Your task to perform on an android device: install app "Microsoft Outlook" Image 0: 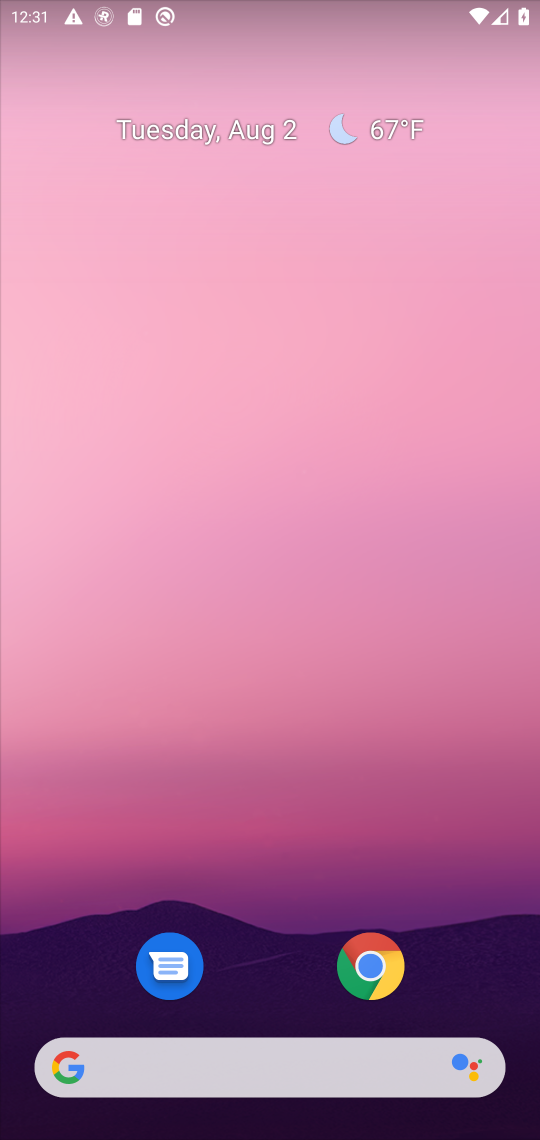
Step 0: drag from (283, 880) to (321, 103)
Your task to perform on an android device: install app "Microsoft Outlook" Image 1: 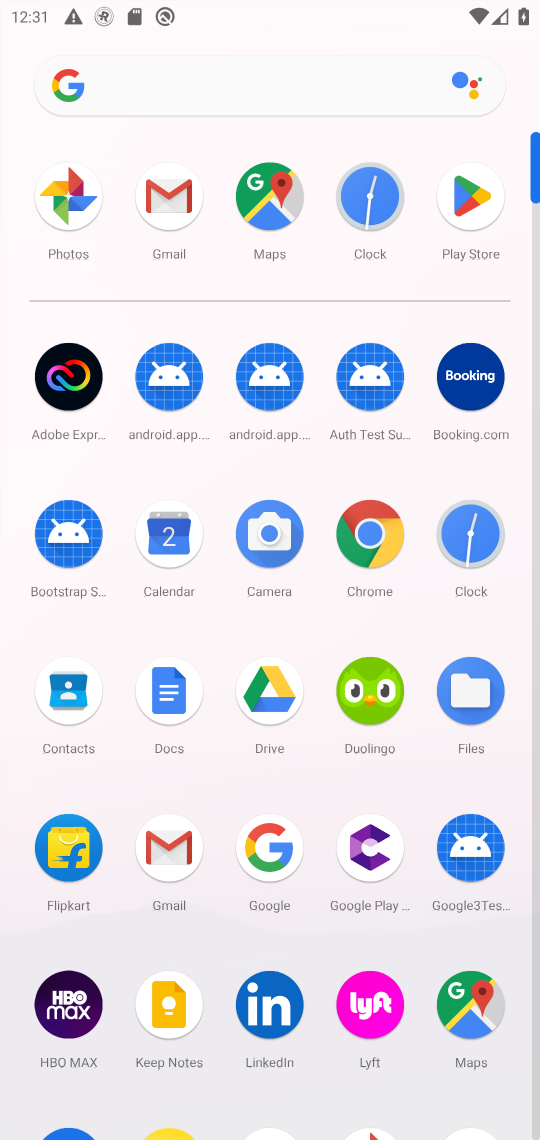
Step 1: click (481, 192)
Your task to perform on an android device: install app "Microsoft Outlook" Image 2: 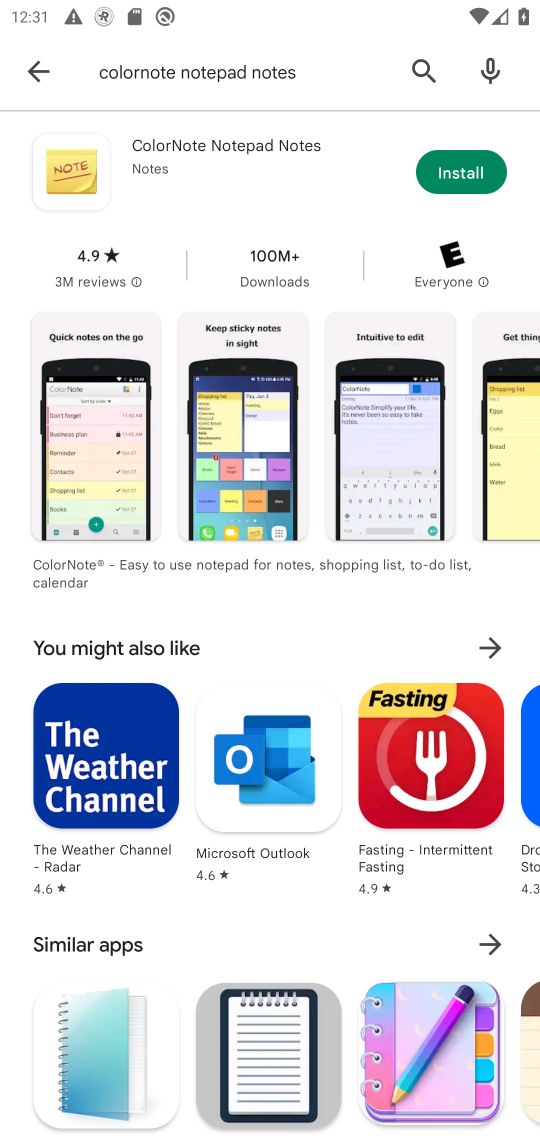
Step 2: click (422, 64)
Your task to perform on an android device: install app "Microsoft Outlook" Image 3: 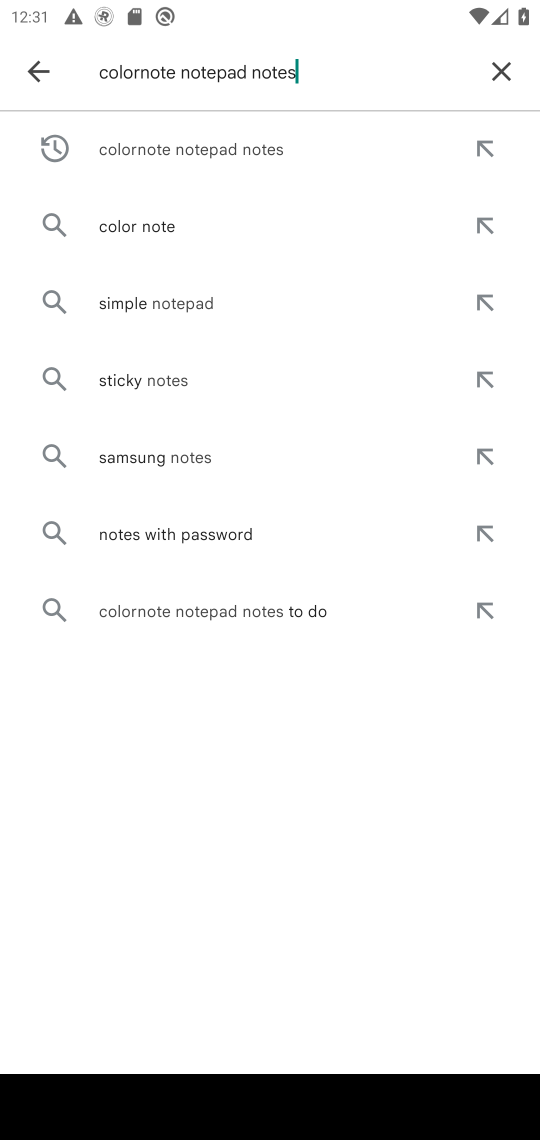
Step 3: click (491, 70)
Your task to perform on an android device: install app "Microsoft Outlook" Image 4: 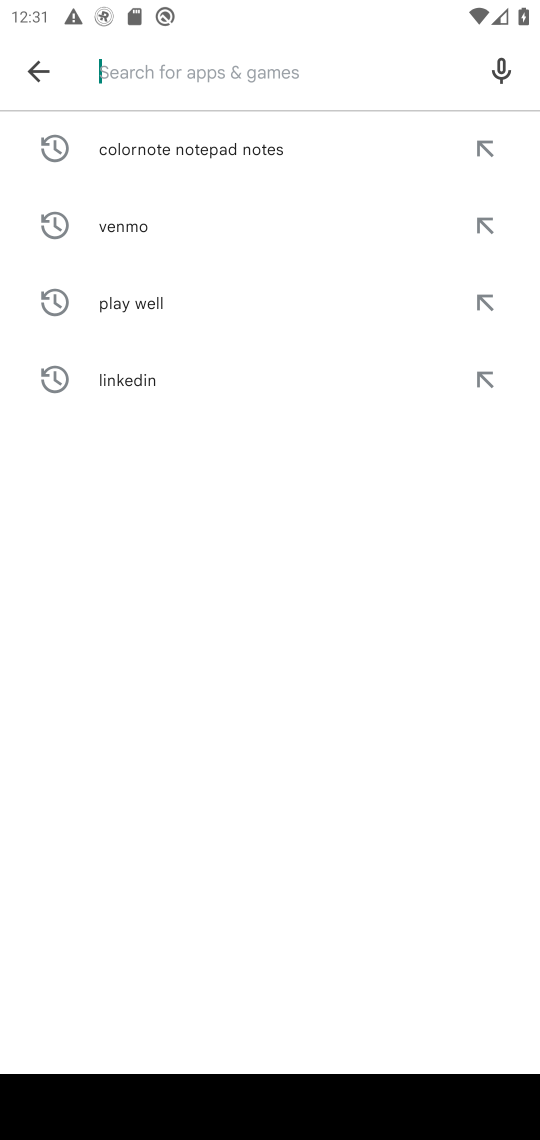
Step 4: click (361, 85)
Your task to perform on an android device: install app "Microsoft Outlook" Image 5: 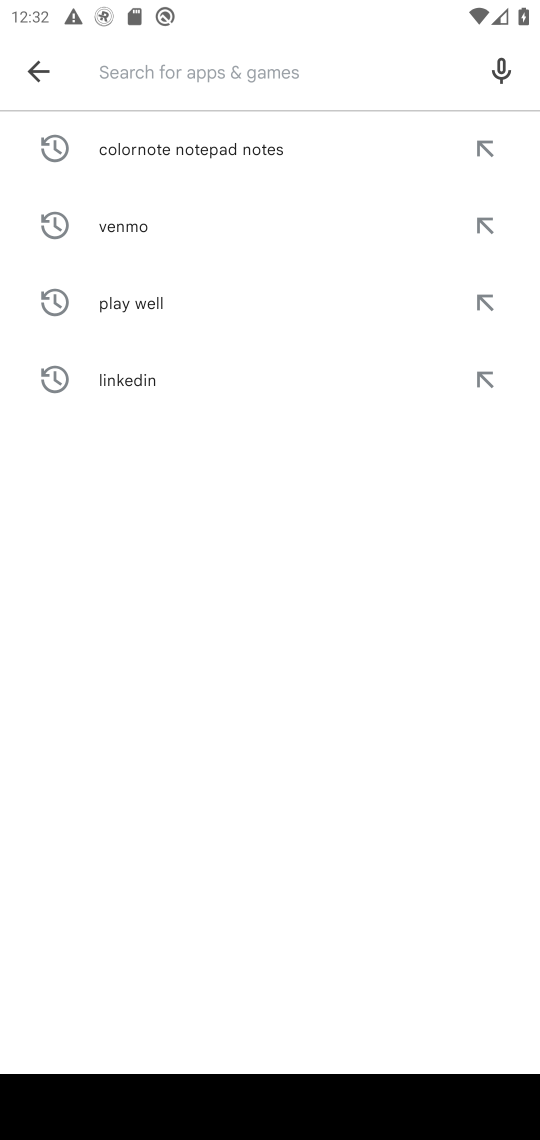
Step 5: type "microsoft outlook"
Your task to perform on an android device: install app "Microsoft Outlook" Image 6: 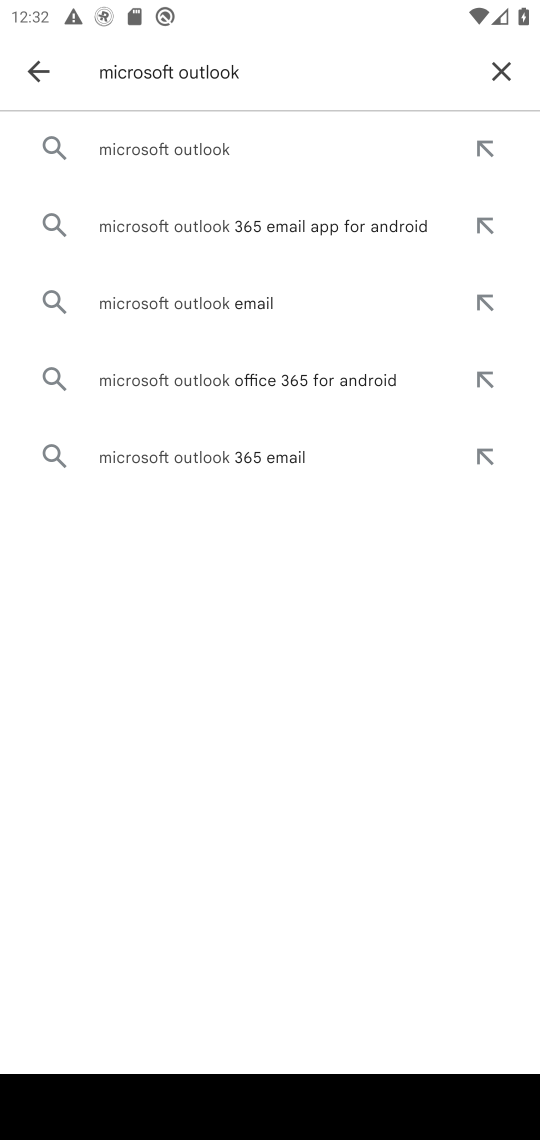
Step 6: click (223, 150)
Your task to perform on an android device: install app "Microsoft Outlook" Image 7: 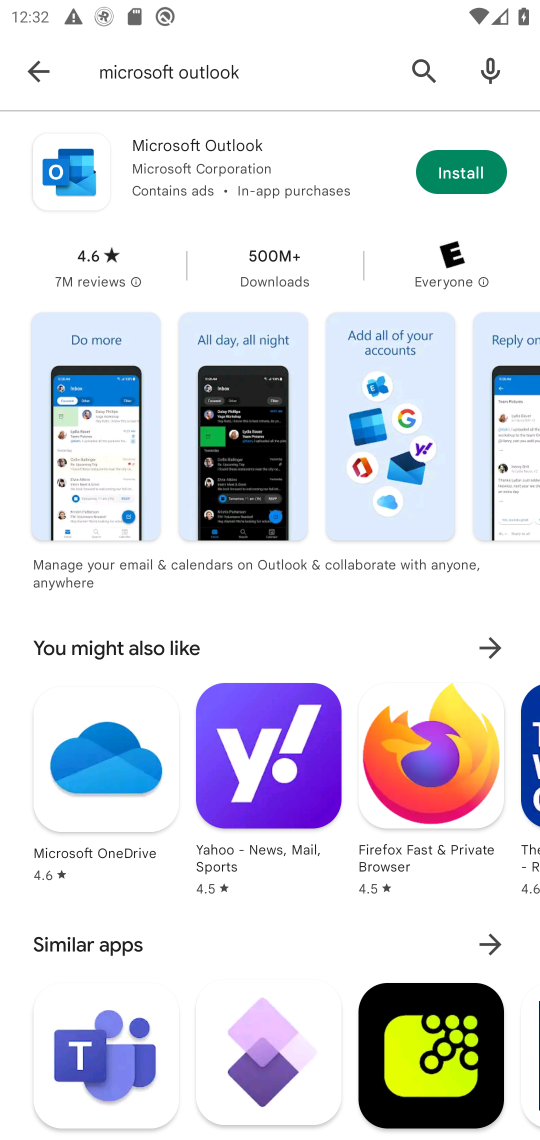
Step 7: click (466, 162)
Your task to perform on an android device: install app "Microsoft Outlook" Image 8: 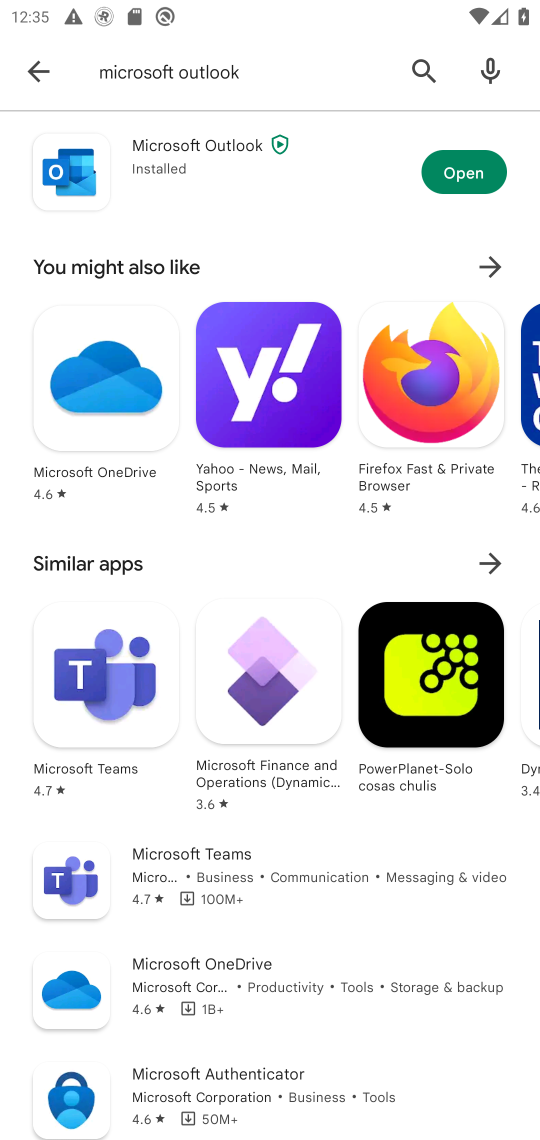
Step 8: task complete